Your task to perform on an android device: turn on improve location accuracy Image 0: 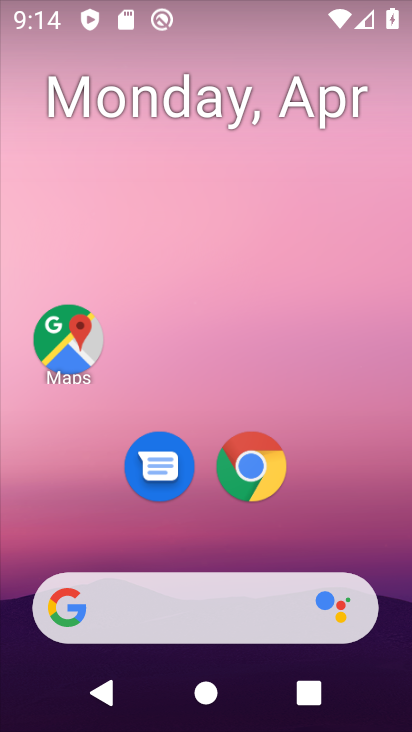
Step 0: drag from (214, 549) to (280, 49)
Your task to perform on an android device: turn on improve location accuracy Image 1: 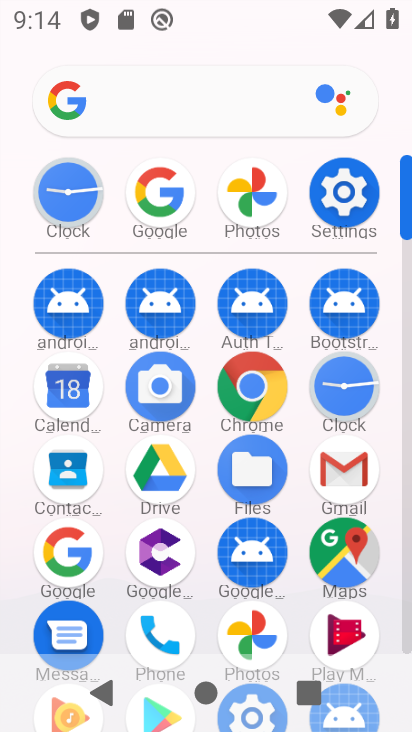
Step 1: click (358, 223)
Your task to perform on an android device: turn on improve location accuracy Image 2: 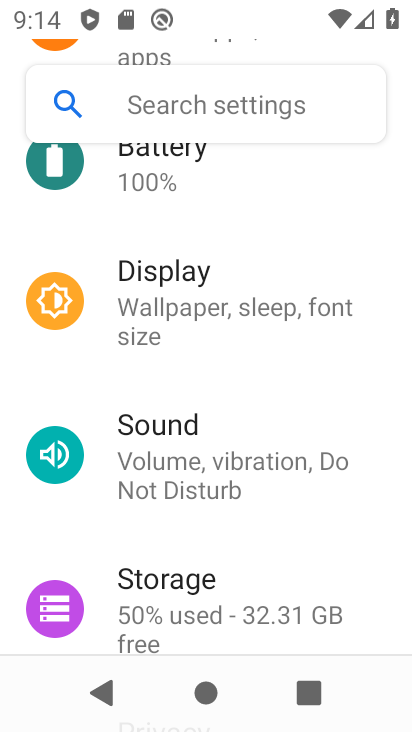
Step 2: drag from (236, 515) to (287, 416)
Your task to perform on an android device: turn on improve location accuracy Image 3: 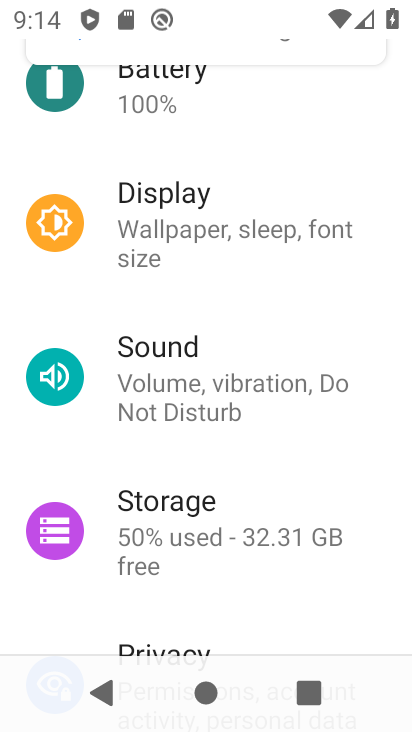
Step 3: drag from (218, 572) to (307, 440)
Your task to perform on an android device: turn on improve location accuracy Image 4: 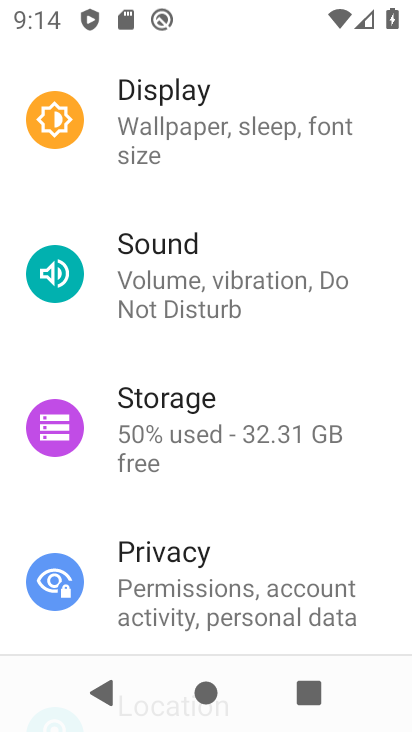
Step 4: drag from (224, 536) to (271, 391)
Your task to perform on an android device: turn on improve location accuracy Image 5: 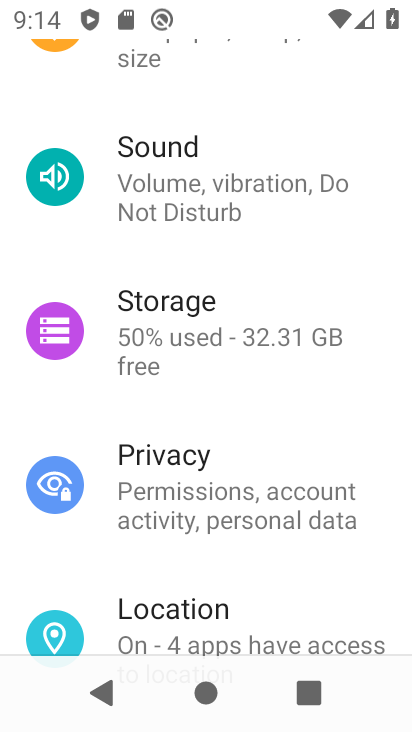
Step 5: drag from (208, 557) to (310, 393)
Your task to perform on an android device: turn on improve location accuracy Image 6: 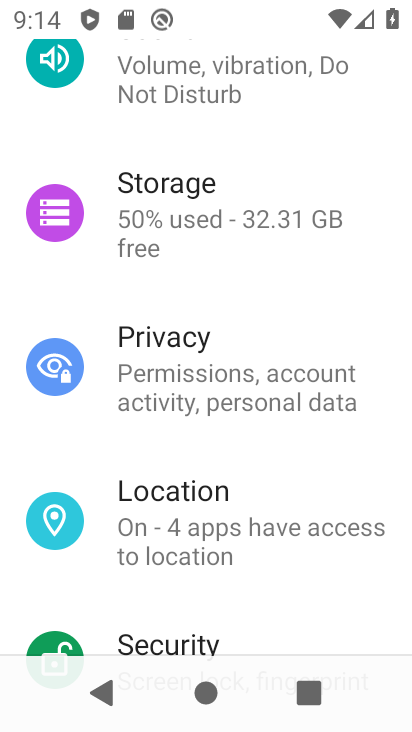
Step 6: drag from (256, 503) to (331, 377)
Your task to perform on an android device: turn on improve location accuracy Image 7: 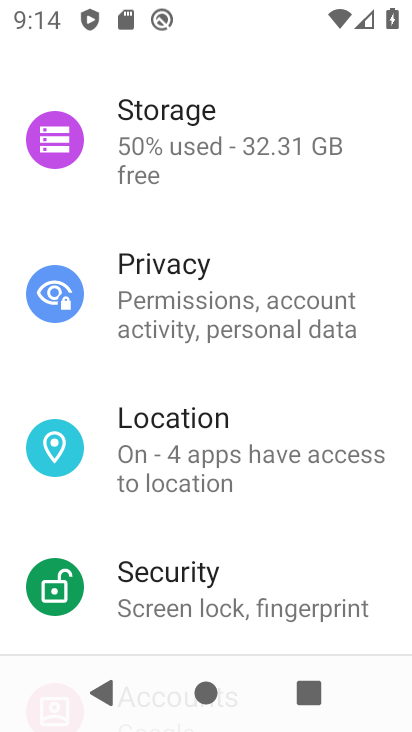
Step 7: click (203, 422)
Your task to perform on an android device: turn on improve location accuracy Image 8: 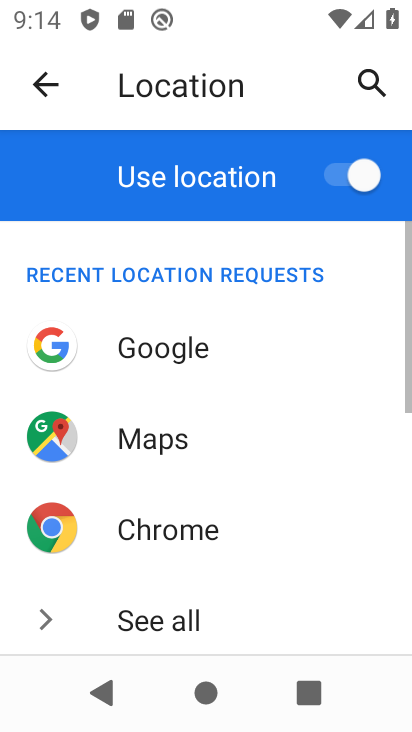
Step 8: drag from (253, 564) to (279, 402)
Your task to perform on an android device: turn on improve location accuracy Image 9: 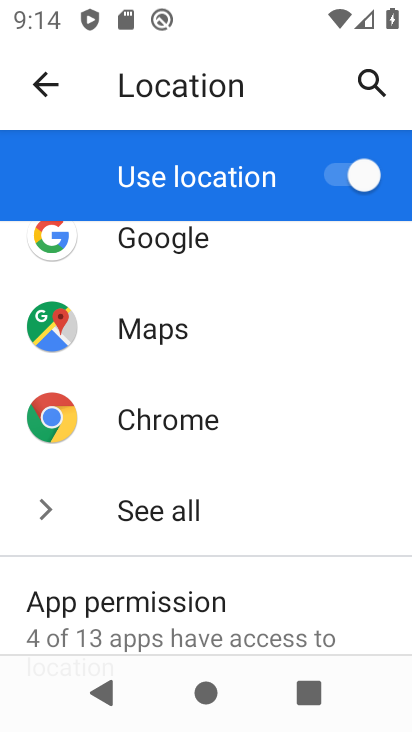
Step 9: click (261, 482)
Your task to perform on an android device: turn on improve location accuracy Image 10: 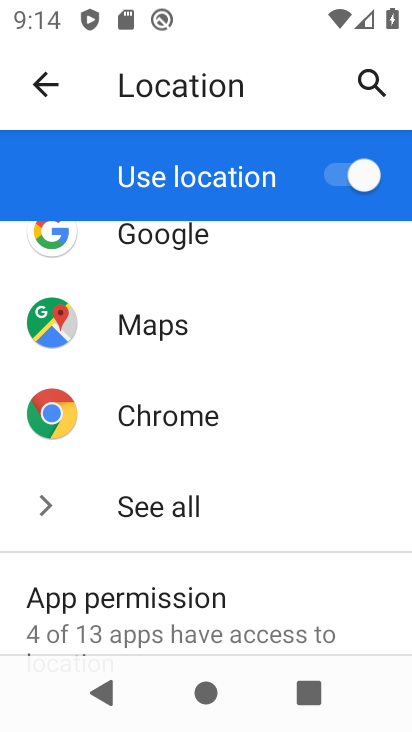
Step 10: drag from (266, 587) to (323, 416)
Your task to perform on an android device: turn on improve location accuracy Image 11: 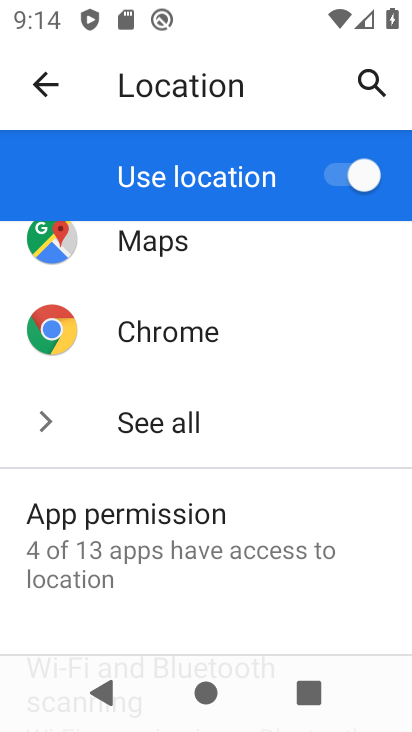
Step 11: drag from (243, 610) to (342, 364)
Your task to perform on an android device: turn on improve location accuracy Image 12: 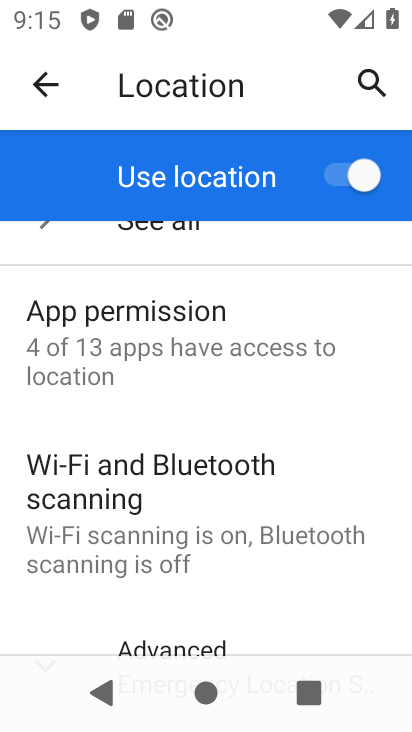
Step 12: drag from (274, 595) to (329, 433)
Your task to perform on an android device: turn on improve location accuracy Image 13: 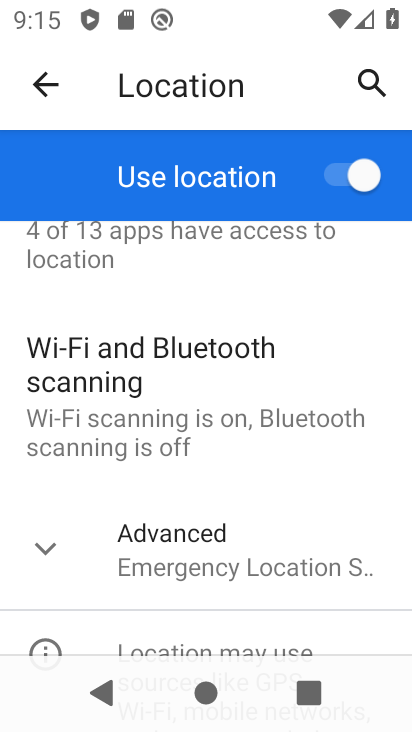
Step 13: click (264, 560)
Your task to perform on an android device: turn on improve location accuracy Image 14: 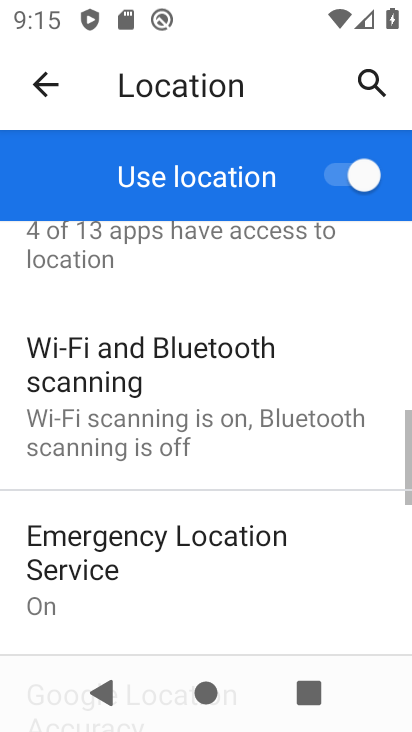
Step 14: drag from (264, 560) to (309, 404)
Your task to perform on an android device: turn on improve location accuracy Image 15: 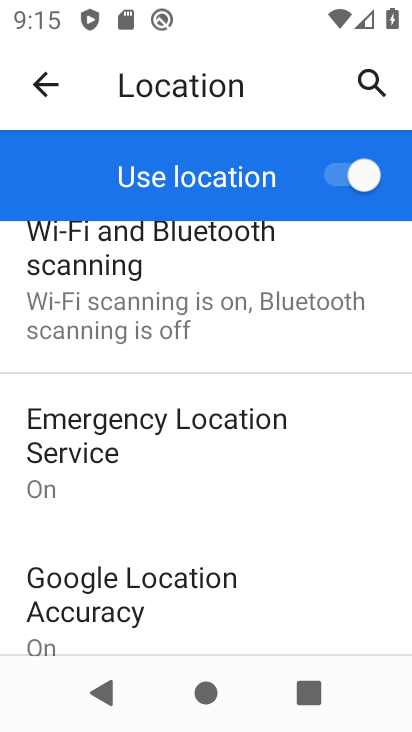
Step 15: drag from (261, 576) to (341, 447)
Your task to perform on an android device: turn on improve location accuracy Image 16: 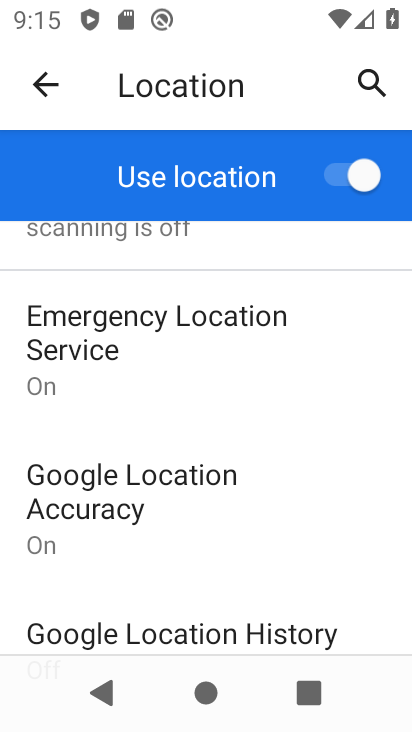
Step 16: click (296, 470)
Your task to perform on an android device: turn on improve location accuracy Image 17: 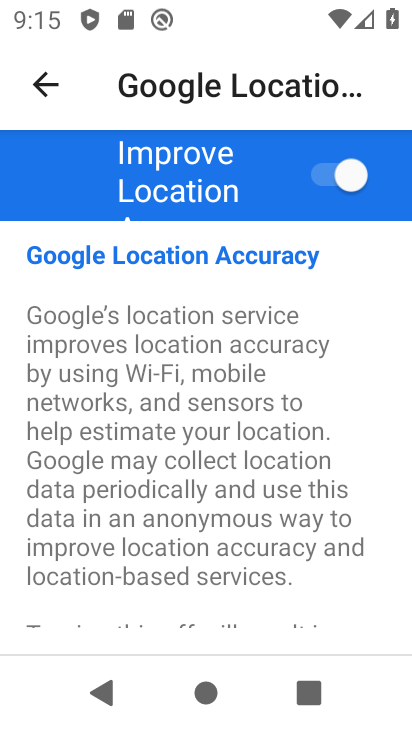
Step 17: task complete